Your task to perform on an android device: turn off location Image 0: 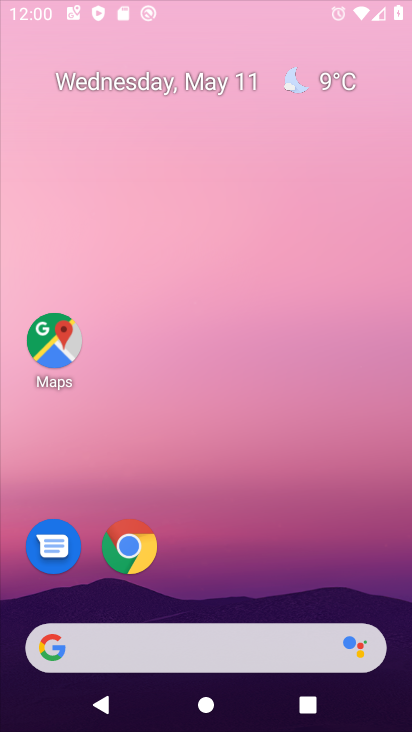
Step 0: drag from (182, 564) to (282, 111)
Your task to perform on an android device: turn off location Image 1: 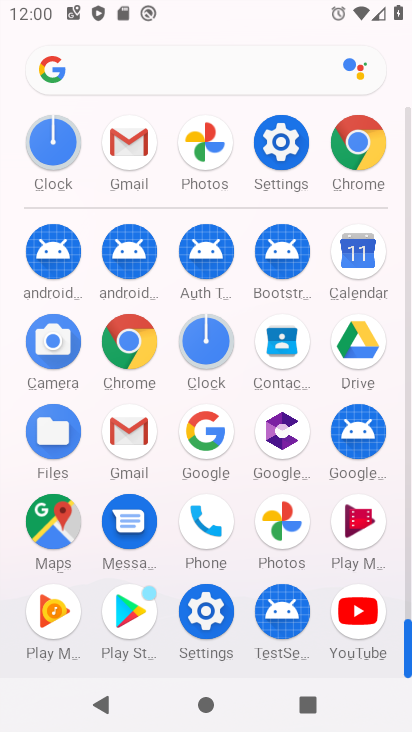
Step 1: click (274, 138)
Your task to perform on an android device: turn off location Image 2: 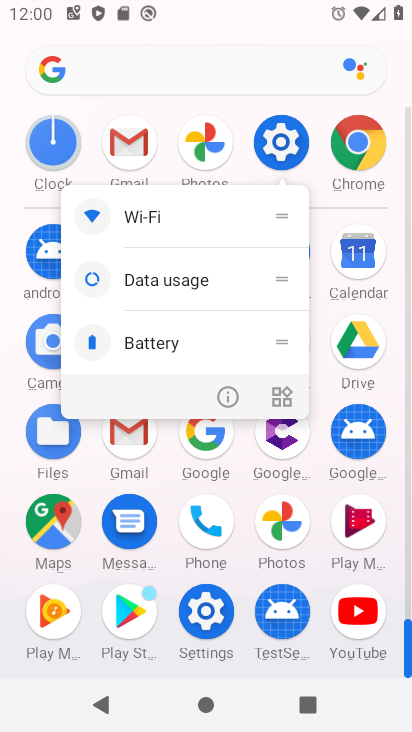
Step 2: click (222, 410)
Your task to perform on an android device: turn off location Image 3: 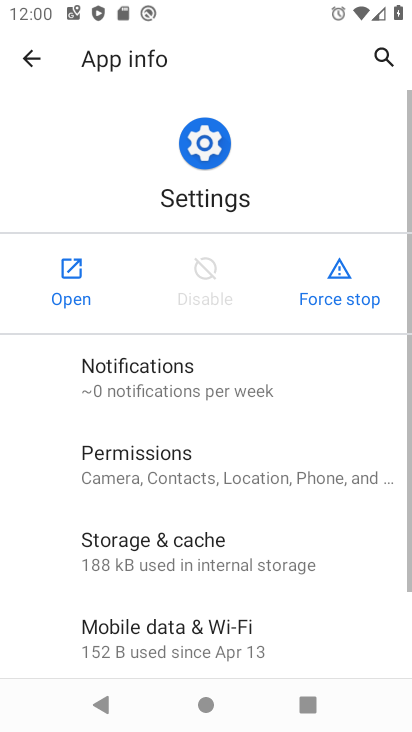
Step 3: click (88, 259)
Your task to perform on an android device: turn off location Image 4: 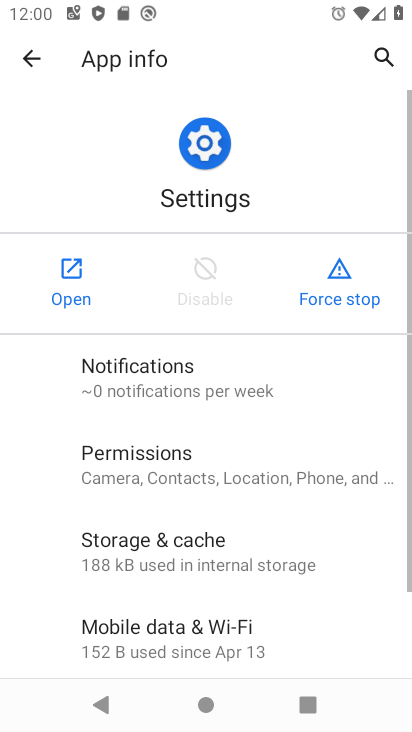
Step 4: click (88, 259)
Your task to perform on an android device: turn off location Image 5: 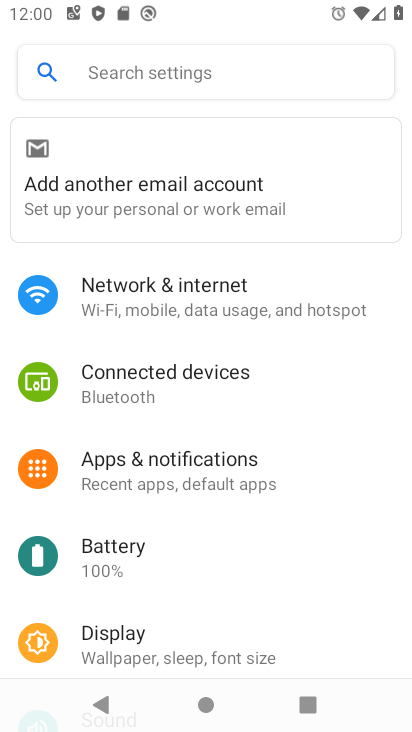
Step 5: drag from (224, 527) to (267, 261)
Your task to perform on an android device: turn off location Image 6: 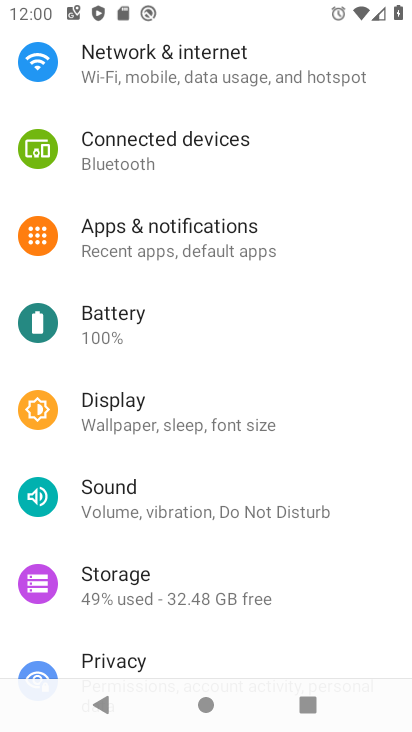
Step 6: drag from (172, 486) to (209, 191)
Your task to perform on an android device: turn off location Image 7: 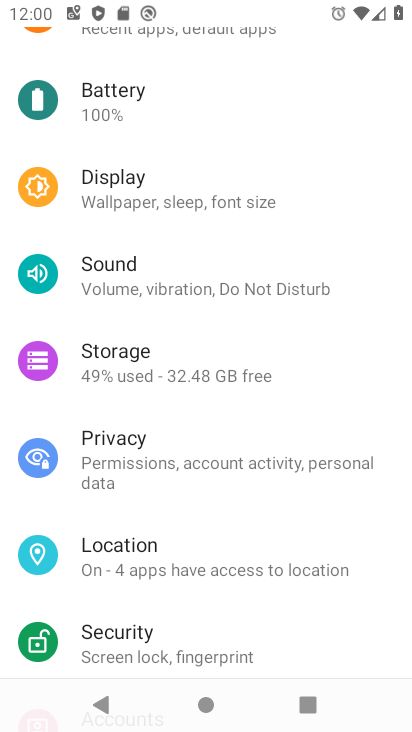
Step 7: click (172, 539)
Your task to perform on an android device: turn off location Image 8: 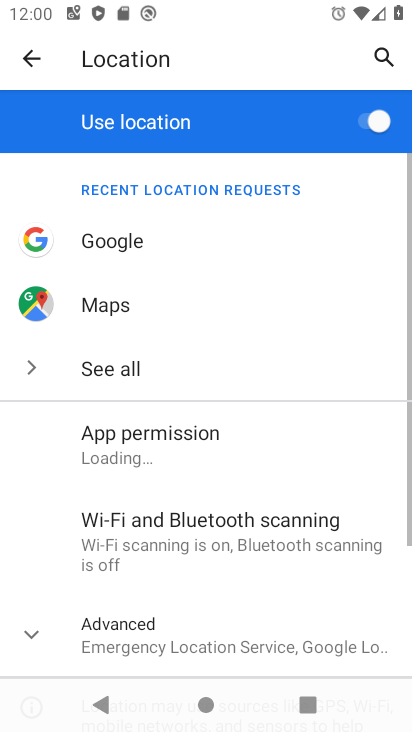
Step 8: drag from (211, 566) to (338, 229)
Your task to perform on an android device: turn off location Image 9: 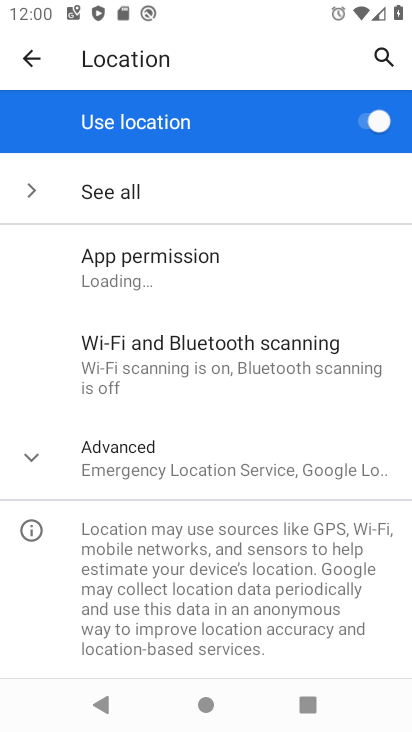
Step 9: click (357, 134)
Your task to perform on an android device: turn off location Image 10: 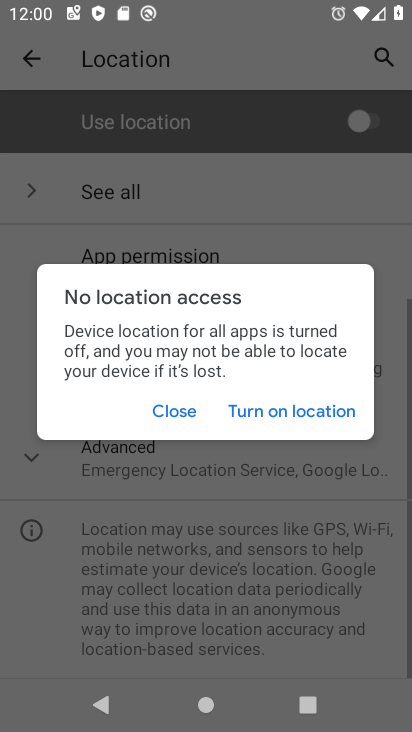
Step 10: task complete